Your task to perform on an android device: Open my contact list Image 0: 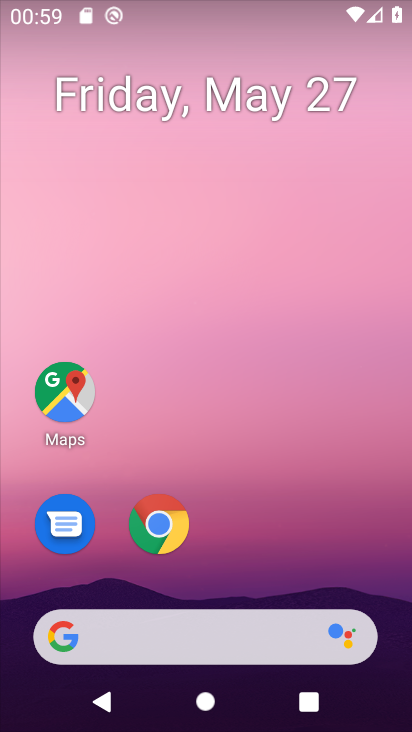
Step 0: drag from (267, 560) to (297, 25)
Your task to perform on an android device: Open my contact list Image 1: 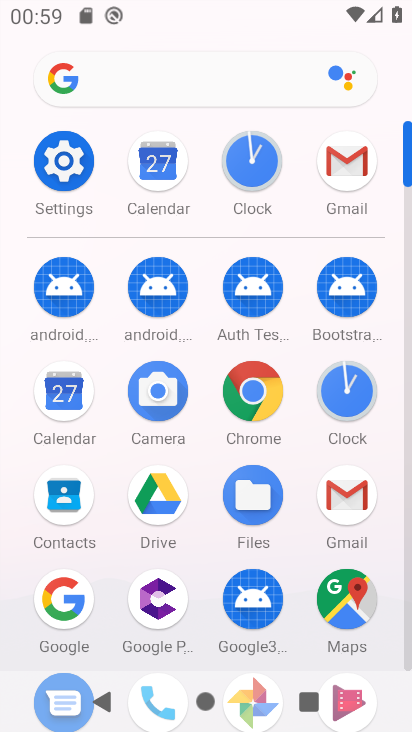
Step 1: click (64, 494)
Your task to perform on an android device: Open my contact list Image 2: 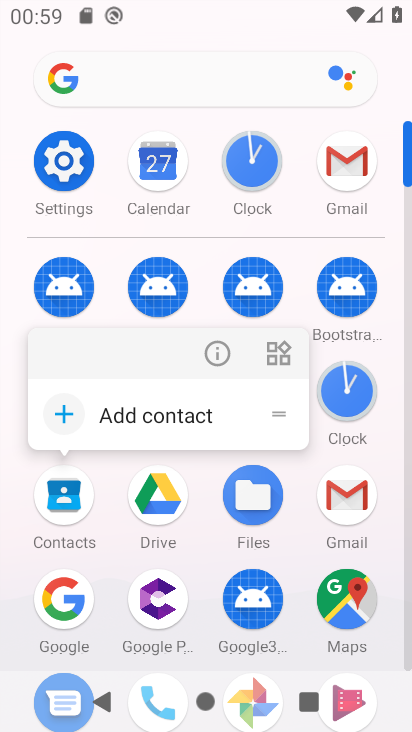
Step 2: click (64, 494)
Your task to perform on an android device: Open my contact list Image 3: 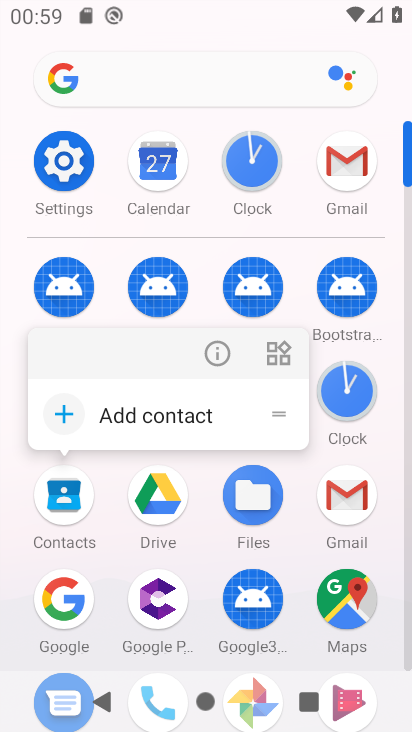
Step 3: click (66, 486)
Your task to perform on an android device: Open my contact list Image 4: 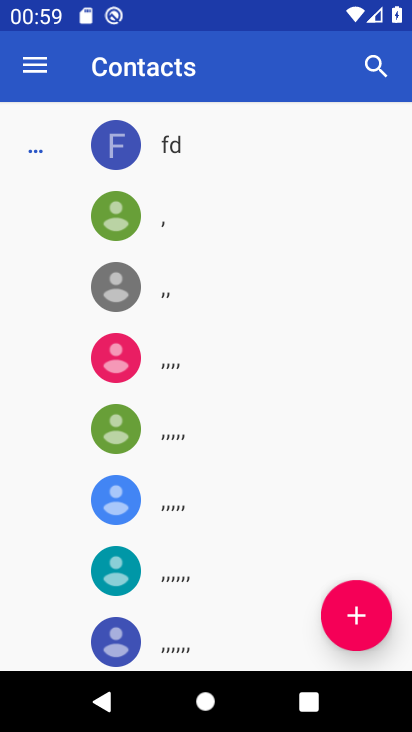
Step 4: task complete